Your task to perform on an android device: Go to Wikipedia Image 0: 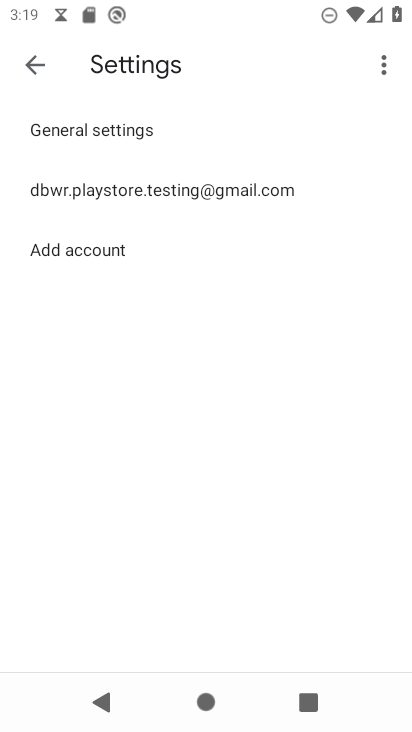
Step 0: press home button
Your task to perform on an android device: Go to Wikipedia Image 1: 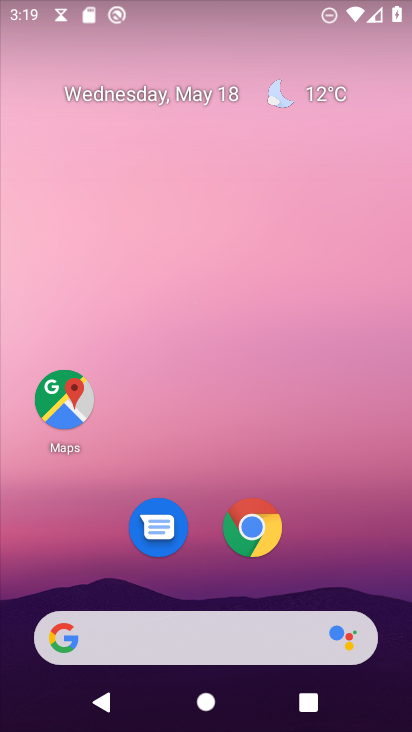
Step 1: click (256, 536)
Your task to perform on an android device: Go to Wikipedia Image 2: 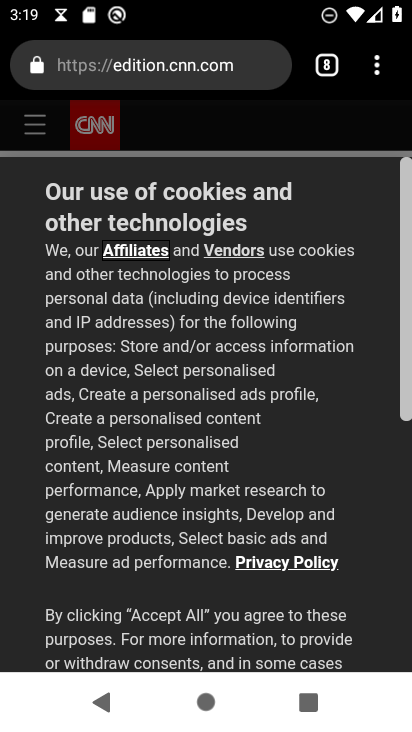
Step 2: click (331, 75)
Your task to perform on an android device: Go to Wikipedia Image 3: 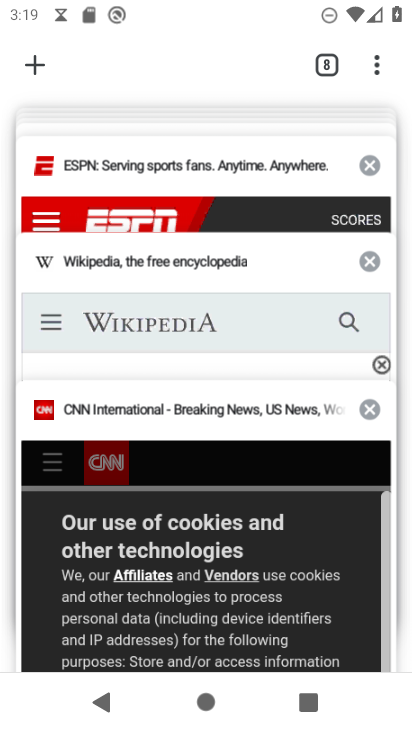
Step 3: click (209, 340)
Your task to perform on an android device: Go to Wikipedia Image 4: 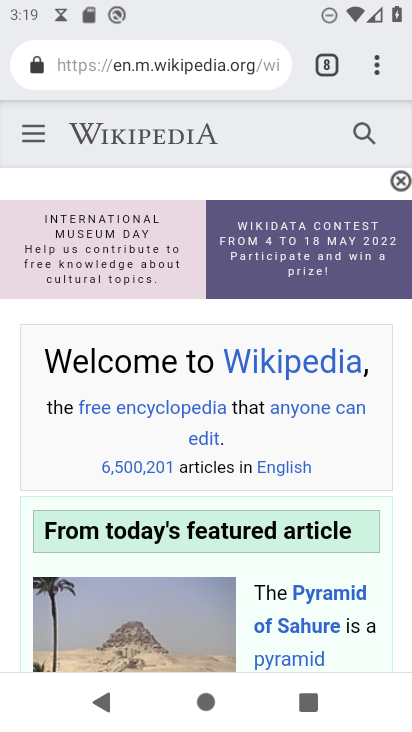
Step 4: task complete